Your task to perform on an android device: Do I have any events tomorrow? Image 0: 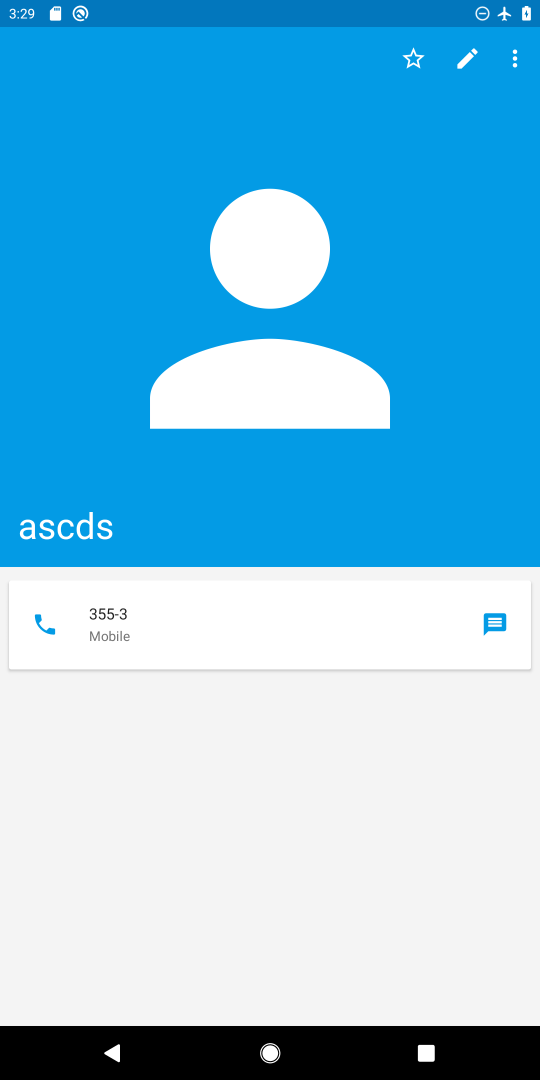
Step 0: press home button
Your task to perform on an android device: Do I have any events tomorrow? Image 1: 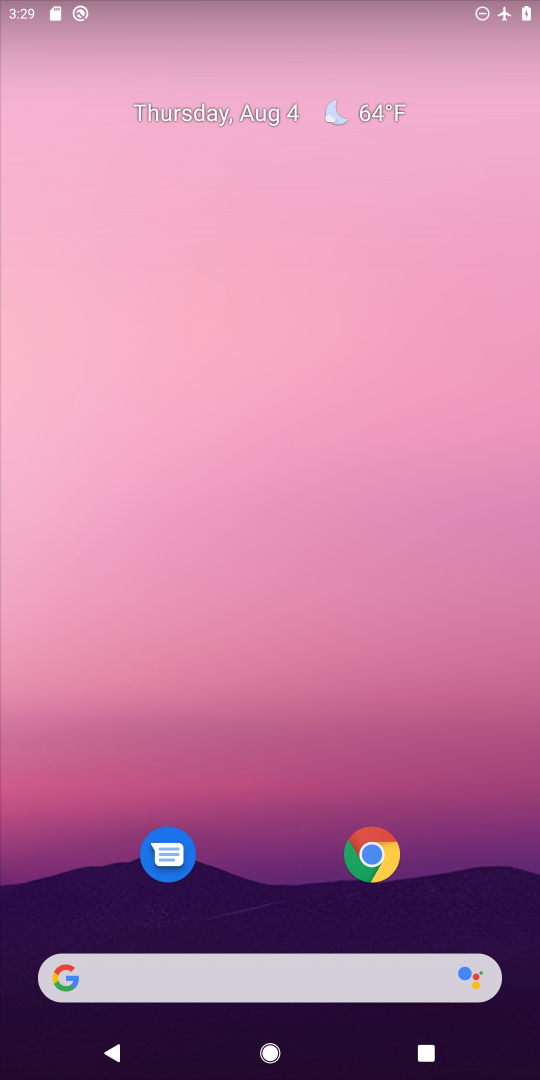
Step 1: drag from (278, 820) to (296, 155)
Your task to perform on an android device: Do I have any events tomorrow? Image 2: 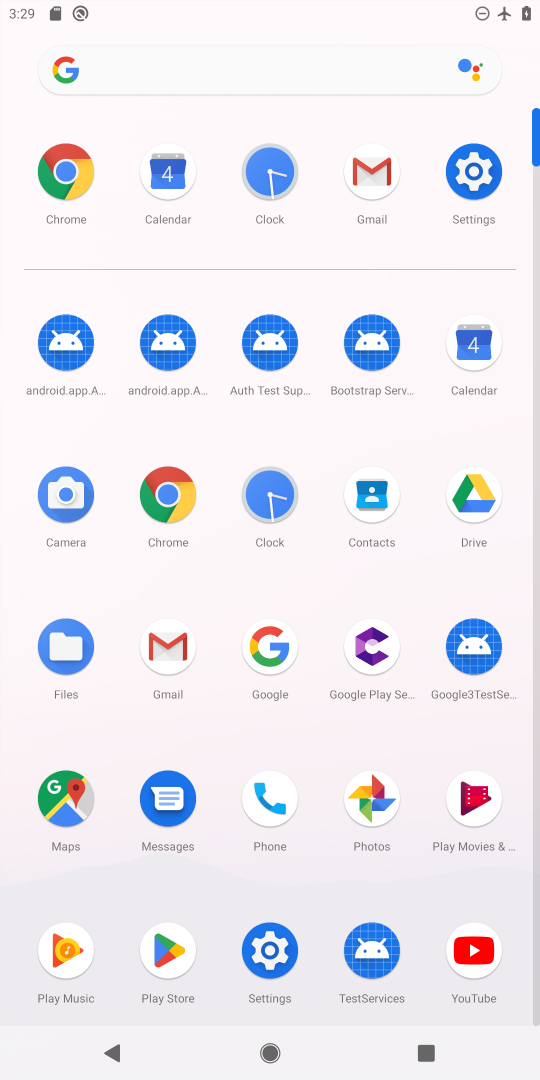
Step 2: click (465, 353)
Your task to perform on an android device: Do I have any events tomorrow? Image 3: 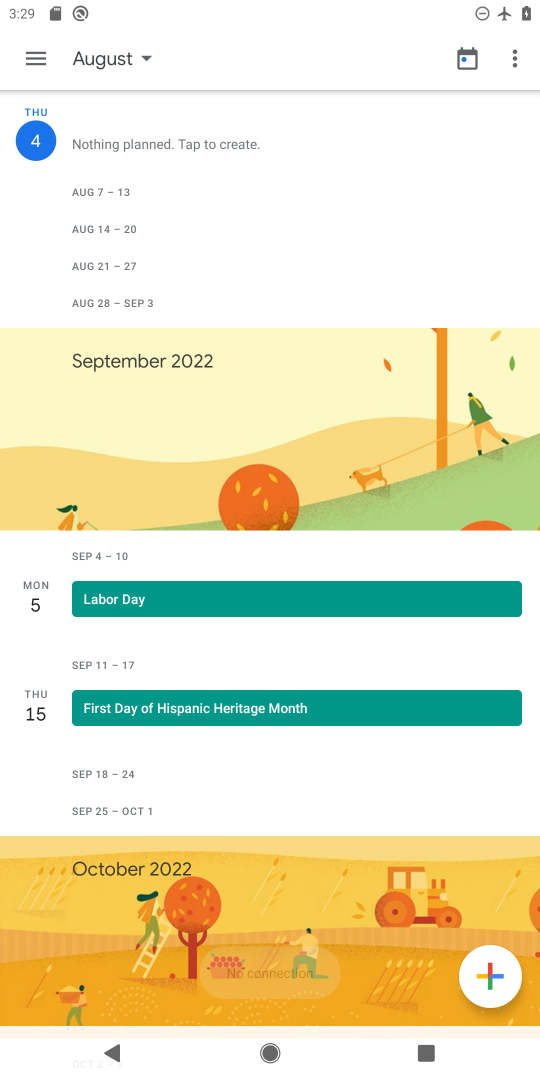
Step 3: task complete